Your task to perform on an android device: Go to Google Image 0: 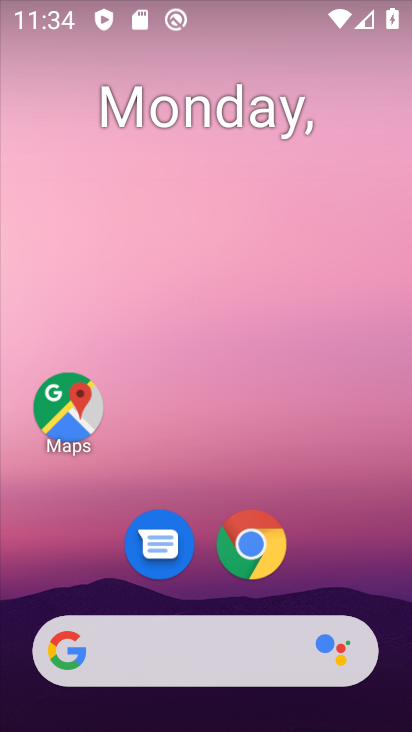
Step 0: click (269, 646)
Your task to perform on an android device: Go to Google Image 1: 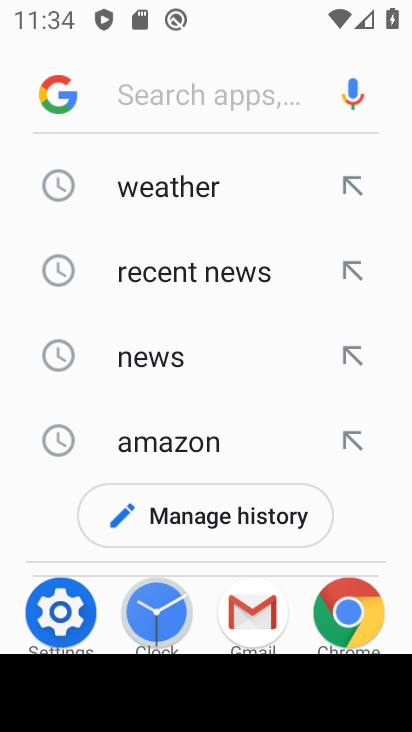
Step 1: task complete